Your task to perform on an android device: Go to privacy settings Image 0: 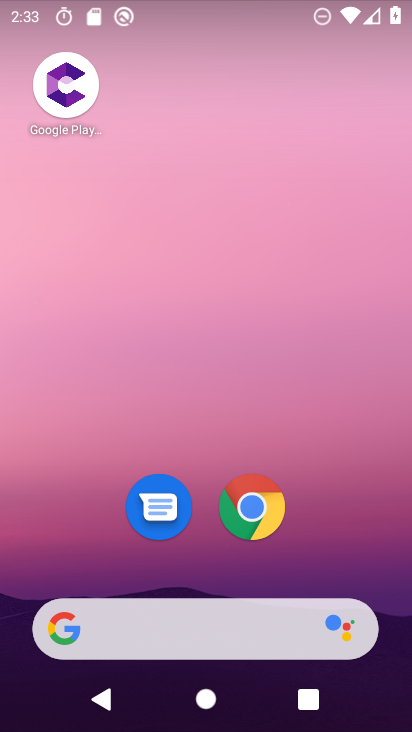
Step 0: drag from (213, 567) to (217, 477)
Your task to perform on an android device: Go to privacy settings Image 1: 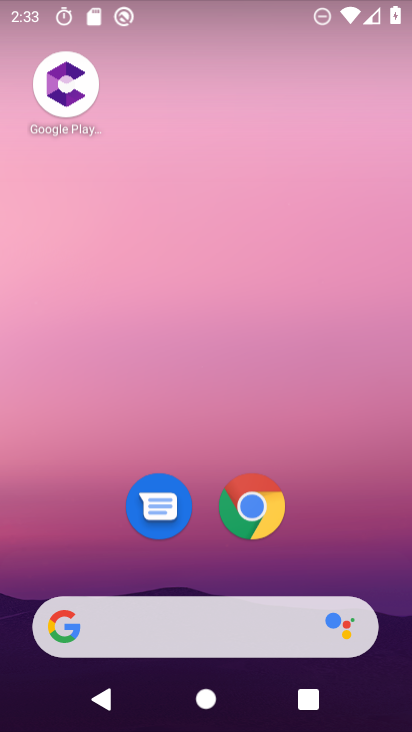
Step 1: click (247, 310)
Your task to perform on an android device: Go to privacy settings Image 2: 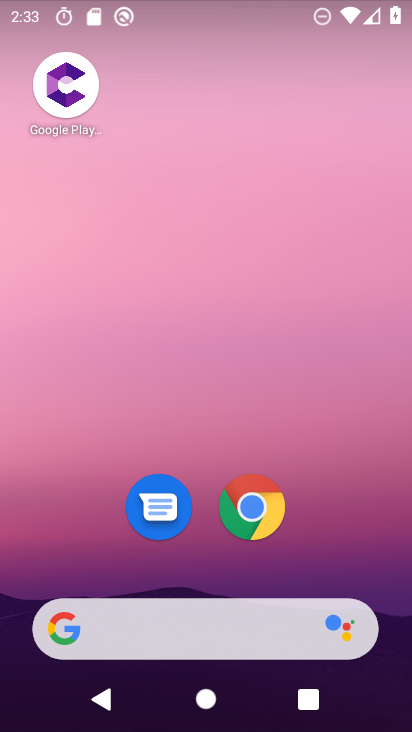
Step 2: click (259, 499)
Your task to perform on an android device: Go to privacy settings Image 3: 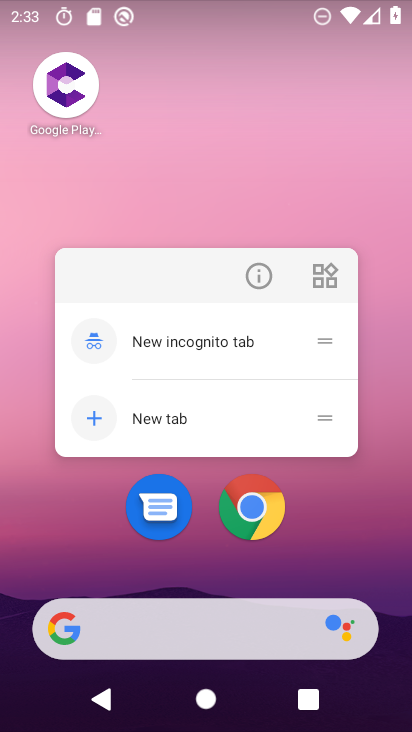
Step 3: click (259, 499)
Your task to perform on an android device: Go to privacy settings Image 4: 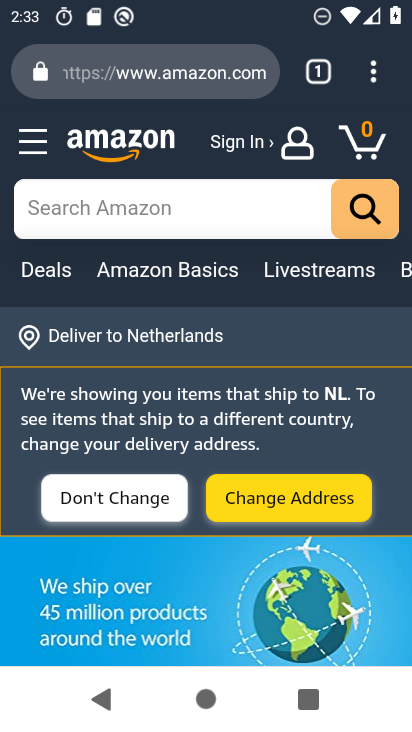
Step 4: click (370, 70)
Your task to perform on an android device: Go to privacy settings Image 5: 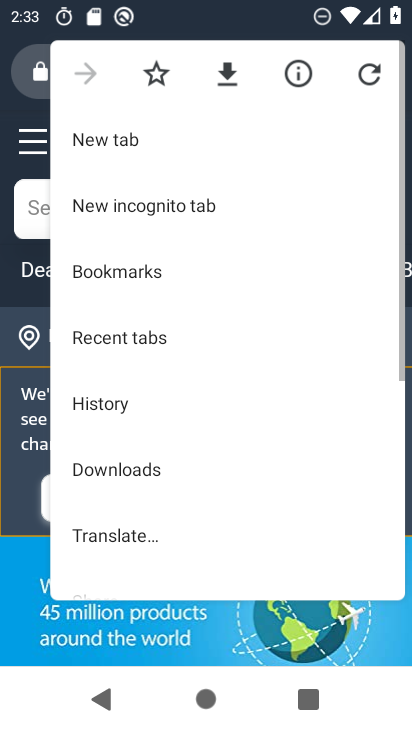
Step 5: drag from (168, 487) to (180, 175)
Your task to perform on an android device: Go to privacy settings Image 6: 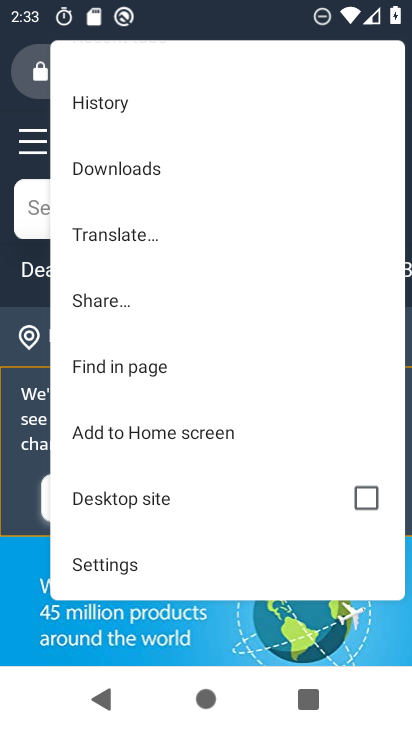
Step 6: click (130, 558)
Your task to perform on an android device: Go to privacy settings Image 7: 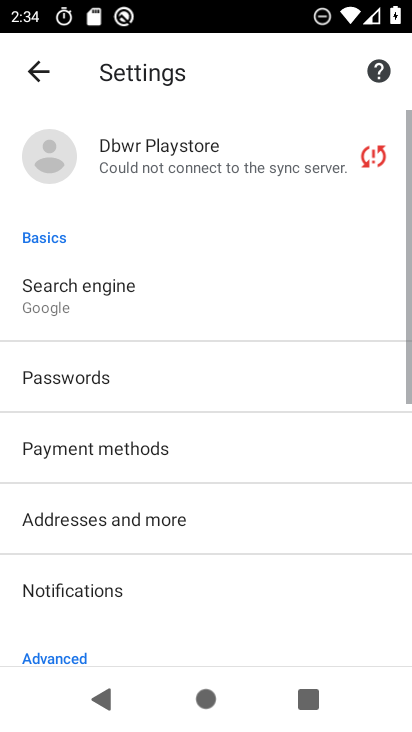
Step 7: drag from (206, 580) to (201, 293)
Your task to perform on an android device: Go to privacy settings Image 8: 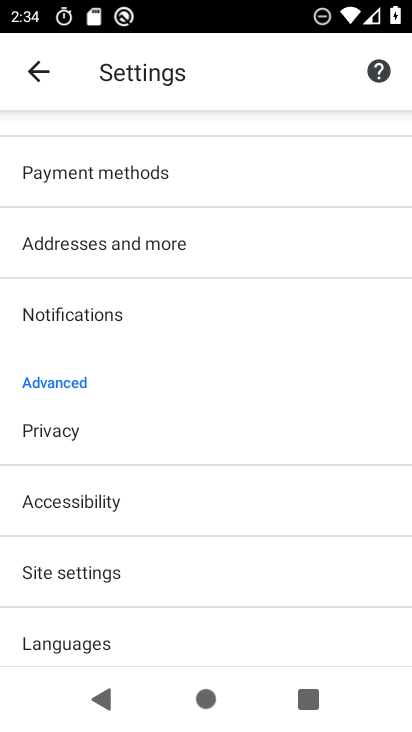
Step 8: click (98, 426)
Your task to perform on an android device: Go to privacy settings Image 9: 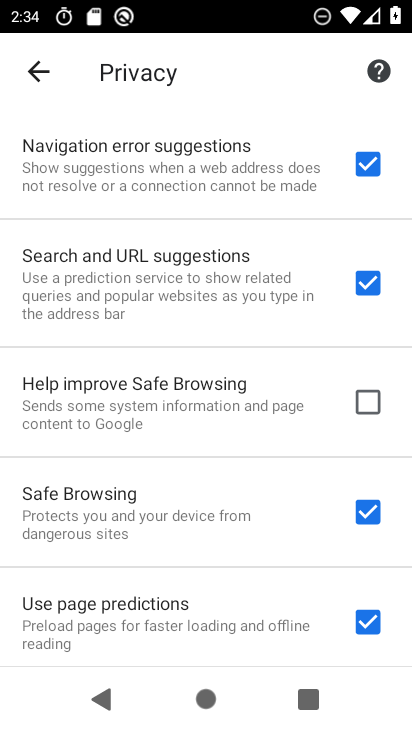
Step 9: task complete